Your task to perform on an android device: turn off notifications settings in the gmail app Image 0: 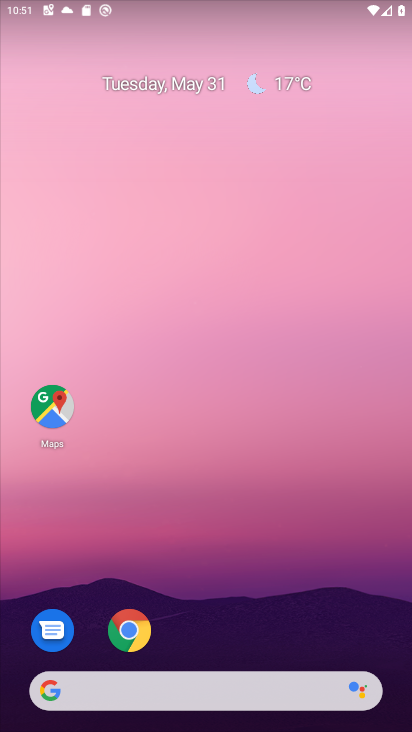
Step 0: drag from (227, 561) to (174, 73)
Your task to perform on an android device: turn off notifications settings in the gmail app Image 1: 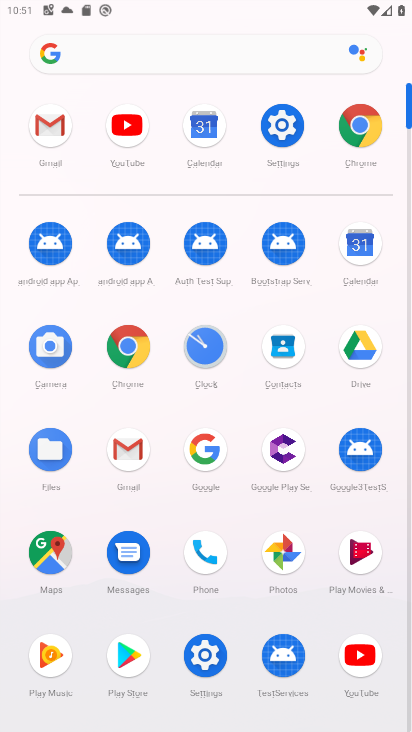
Step 1: click (56, 110)
Your task to perform on an android device: turn off notifications settings in the gmail app Image 2: 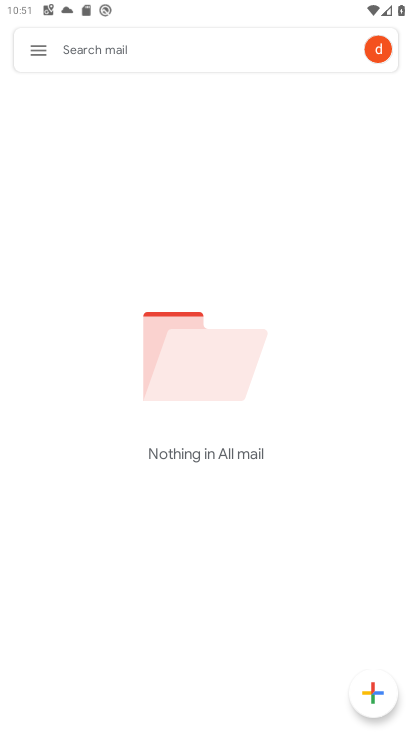
Step 2: click (37, 58)
Your task to perform on an android device: turn off notifications settings in the gmail app Image 3: 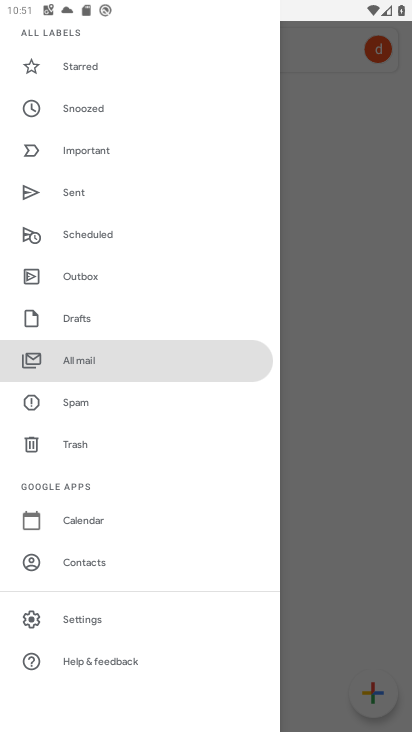
Step 3: click (78, 608)
Your task to perform on an android device: turn off notifications settings in the gmail app Image 4: 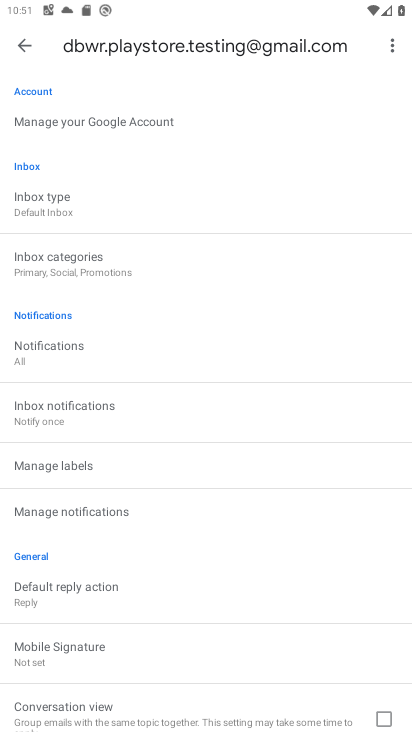
Step 4: click (74, 504)
Your task to perform on an android device: turn off notifications settings in the gmail app Image 5: 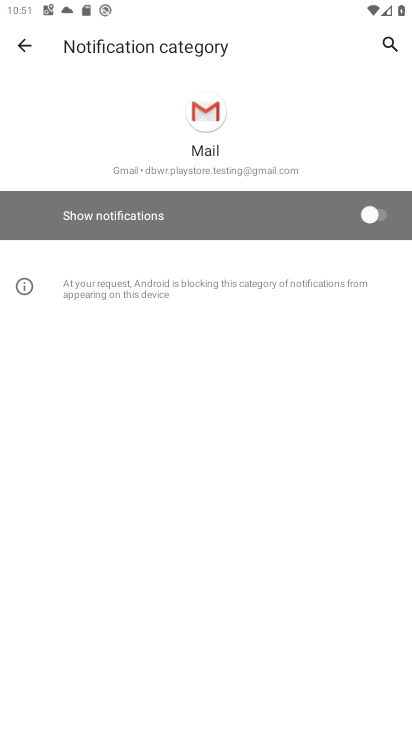
Step 5: task complete